Your task to perform on an android device: turn off improve location accuracy Image 0: 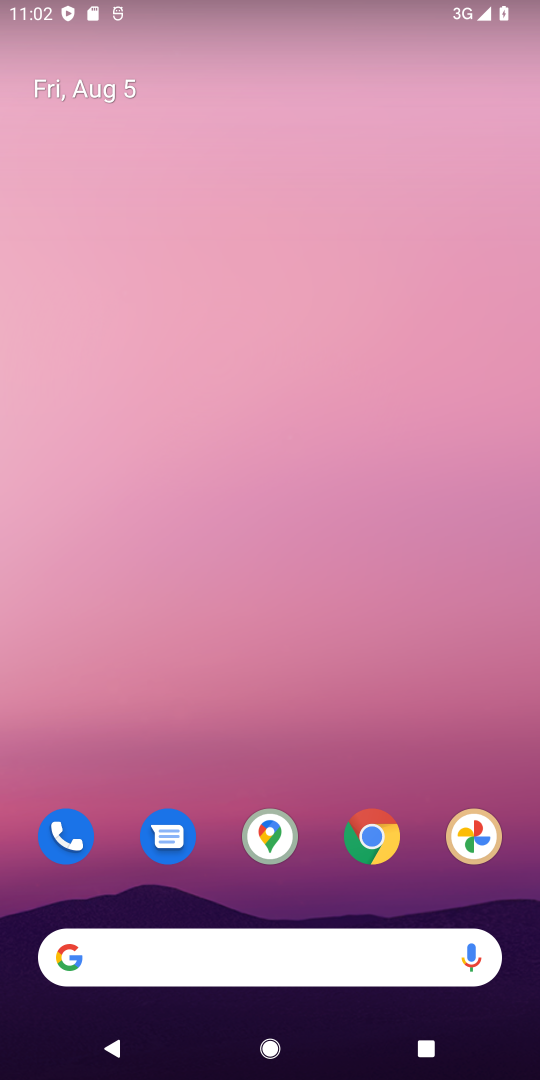
Step 0: drag from (216, 874) to (321, 245)
Your task to perform on an android device: turn off improve location accuracy Image 1: 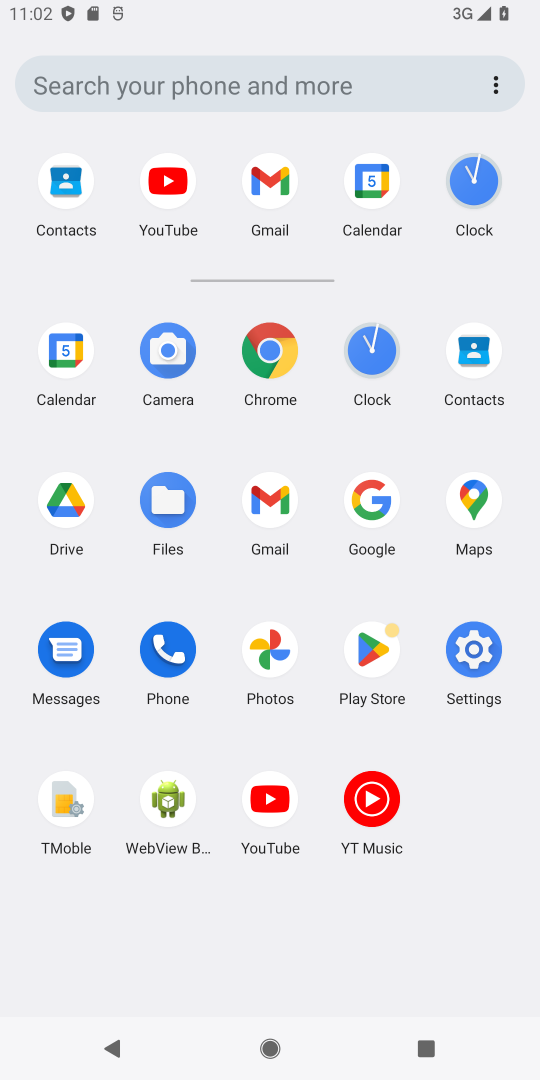
Step 1: click (474, 659)
Your task to perform on an android device: turn off improve location accuracy Image 2: 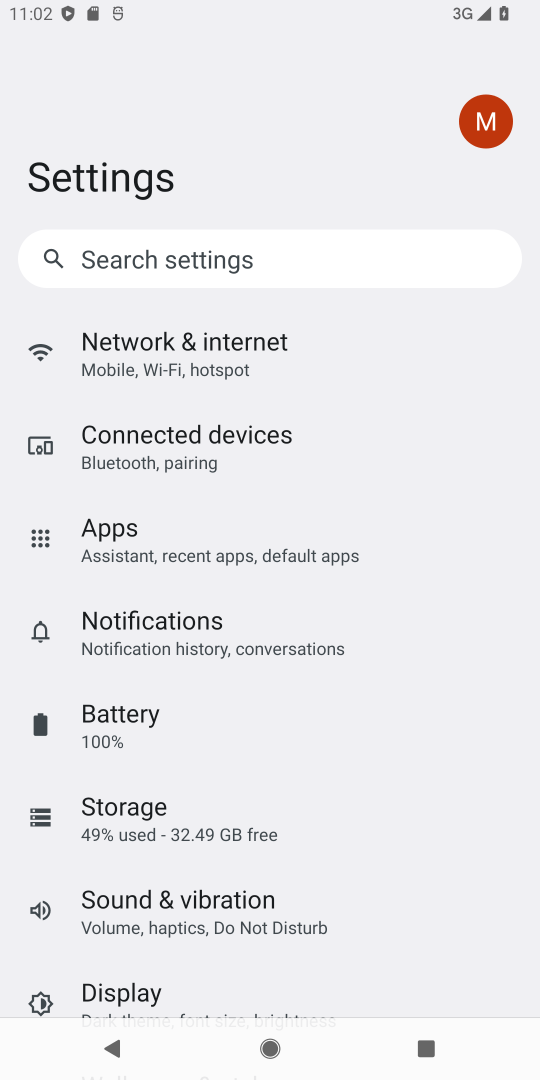
Step 2: drag from (387, 882) to (405, 331)
Your task to perform on an android device: turn off improve location accuracy Image 3: 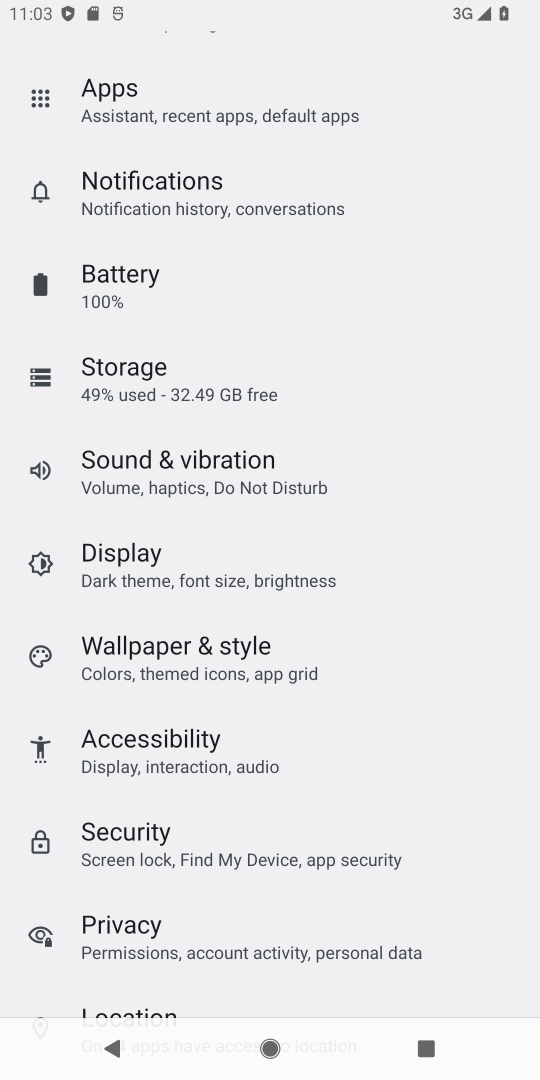
Step 3: click (160, 1003)
Your task to perform on an android device: turn off improve location accuracy Image 4: 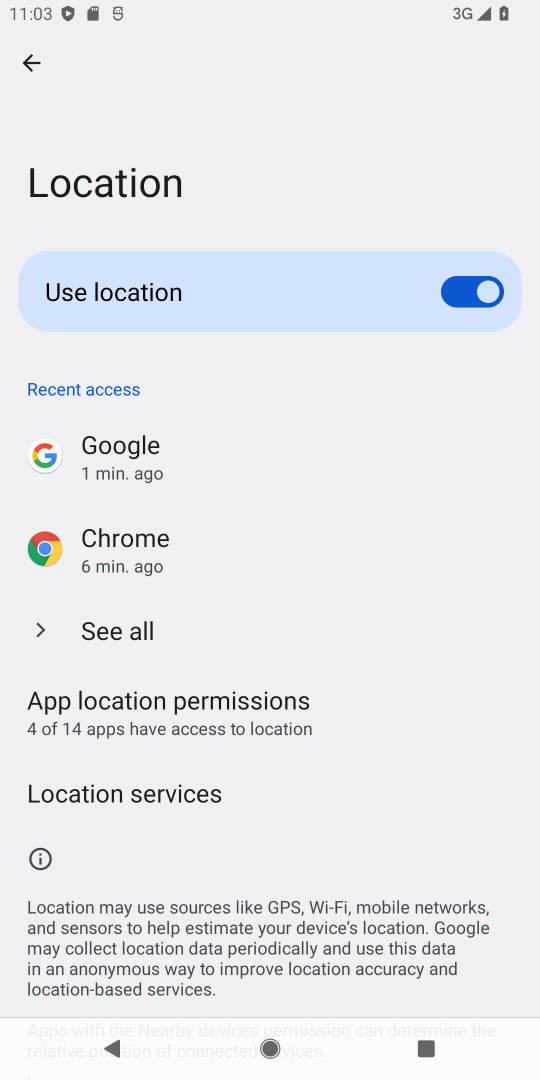
Step 4: drag from (328, 901) to (426, 410)
Your task to perform on an android device: turn off improve location accuracy Image 5: 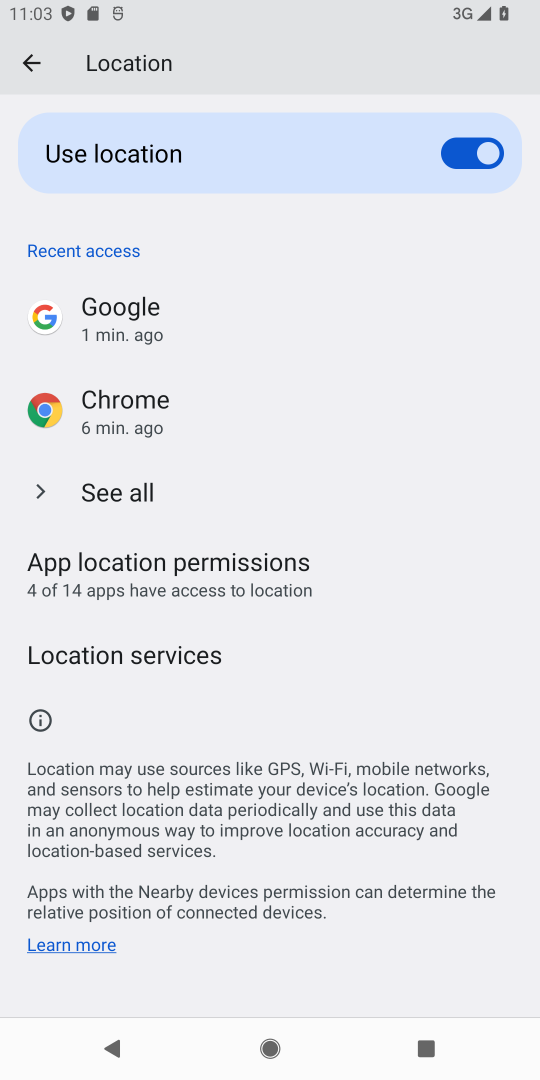
Step 5: drag from (316, 415) to (293, 715)
Your task to perform on an android device: turn off improve location accuracy Image 6: 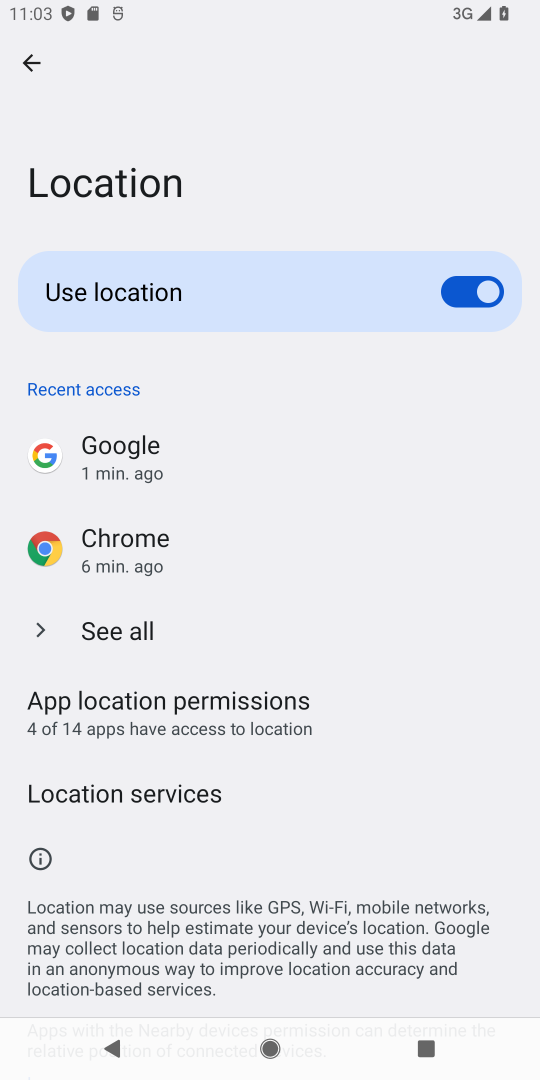
Step 6: click (32, 53)
Your task to perform on an android device: turn off improve location accuracy Image 7: 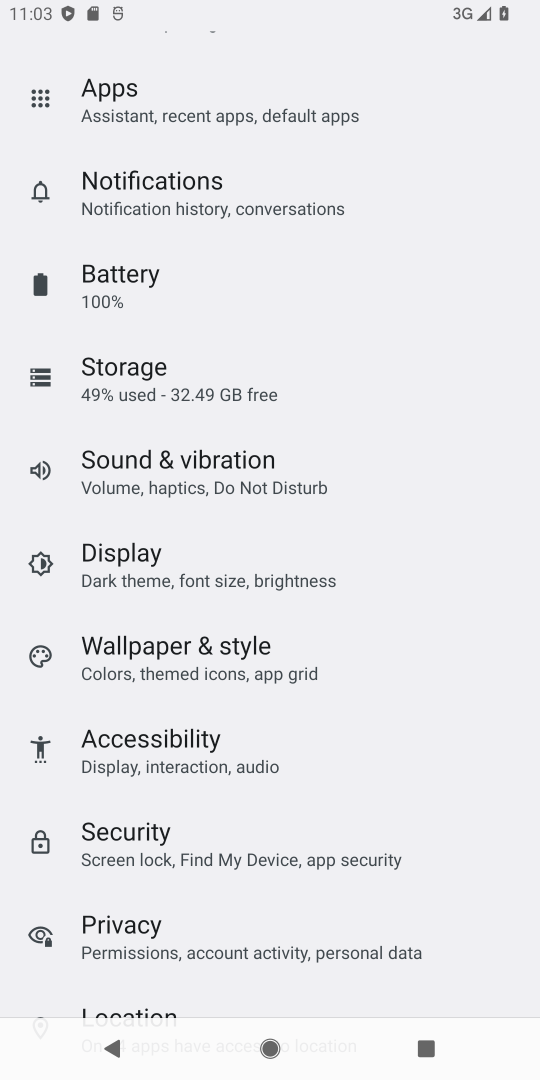
Step 7: task complete